Your task to perform on an android device: open chrome and create a bookmark for the current page Image 0: 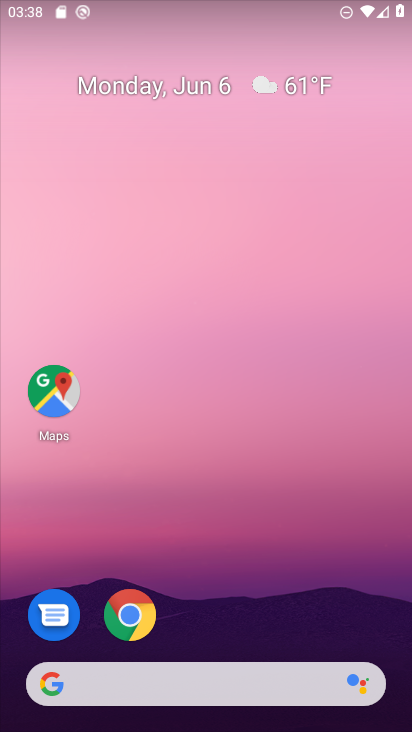
Step 0: click (129, 614)
Your task to perform on an android device: open chrome and create a bookmark for the current page Image 1: 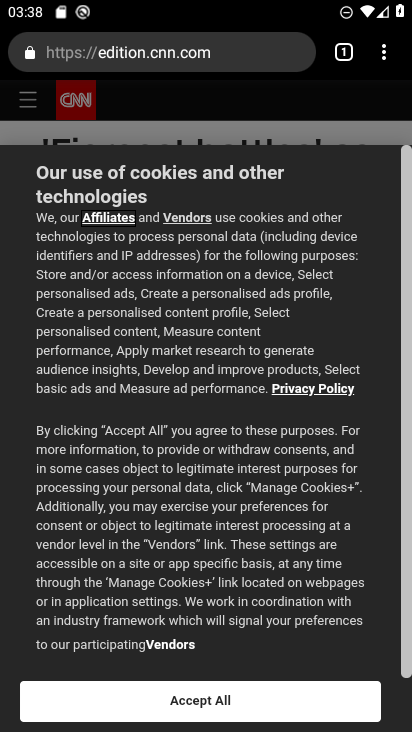
Step 1: click (384, 54)
Your task to perform on an android device: open chrome and create a bookmark for the current page Image 2: 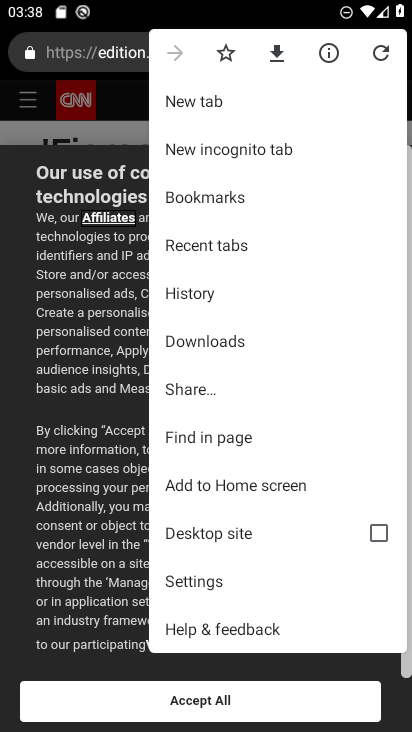
Step 2: click (228, 54)
Your task to perform on an android device: open chrome and create a bookmark for the current page Image 3: 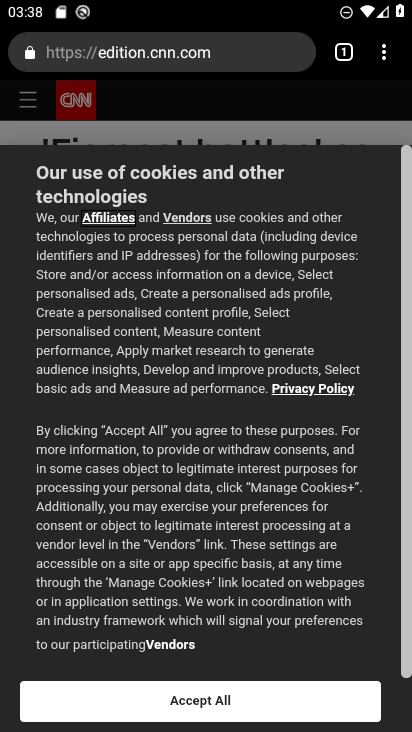
Step 3: task complete